Your task to perform on an android device: Toggle the flashlight Image 0: 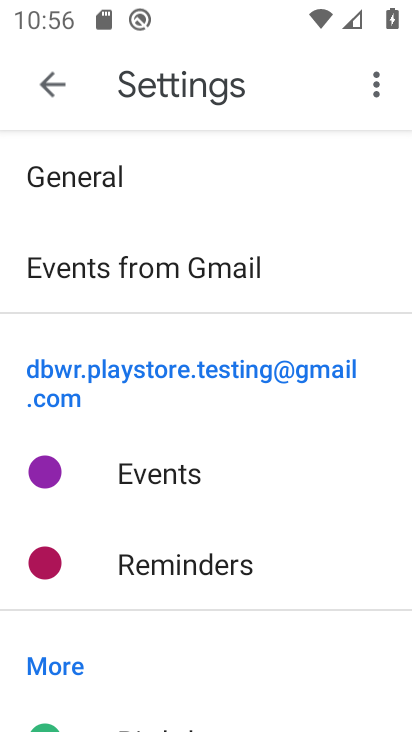
Step 0: press home button
Your task to perform on an android device: Toggle the flashlight Image 1: 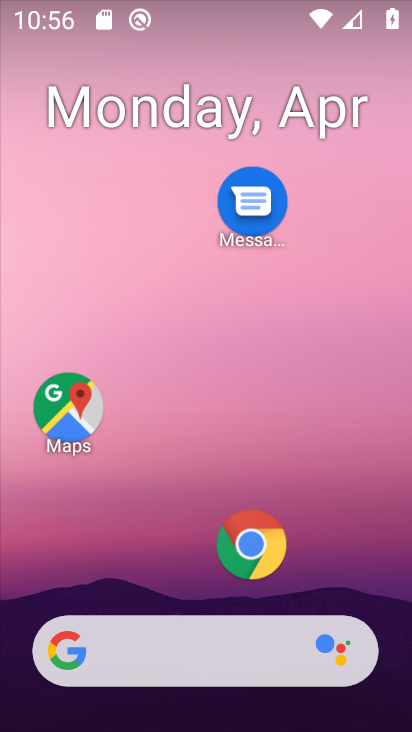
Step 1: drag from (200, 591) to (247, 135)
Your task to perform on an android device: Toggle the flashlight Image 2: 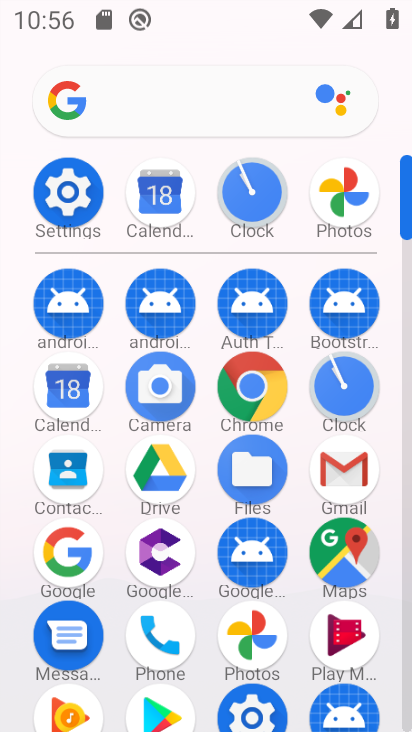
Step 2: click (67, 180)
Your task to perform on an android device: Toggle the flashlight Image 3: 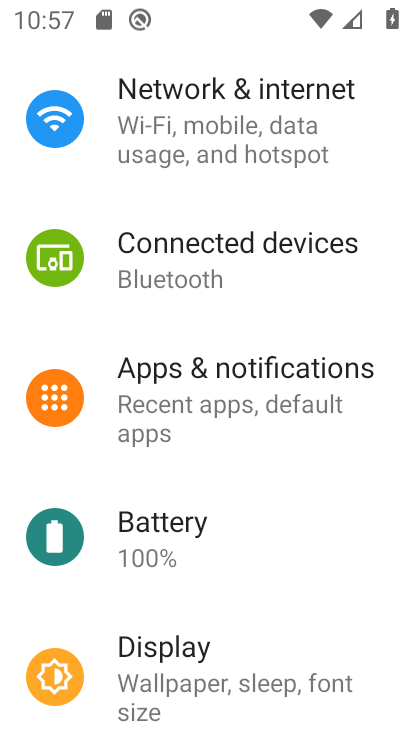
Step 3: drag from (216, 188) to (215, 569)
Your task to perform on an android device: Toggle the flashlight Image 4: 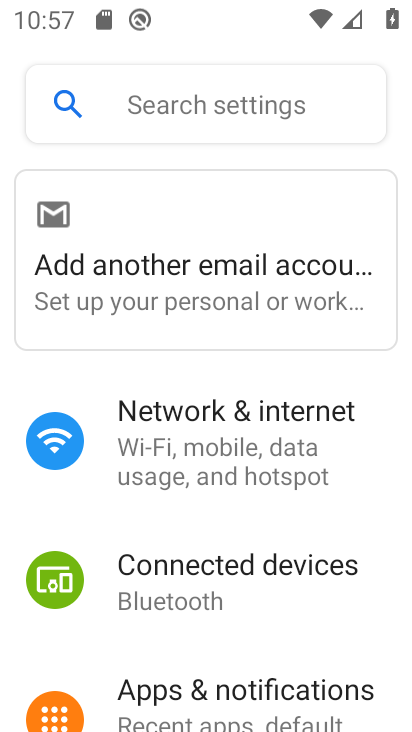
Step 4: click (172, 106)
Your task to perform on an android device: Toggle the flashlight Image 5: 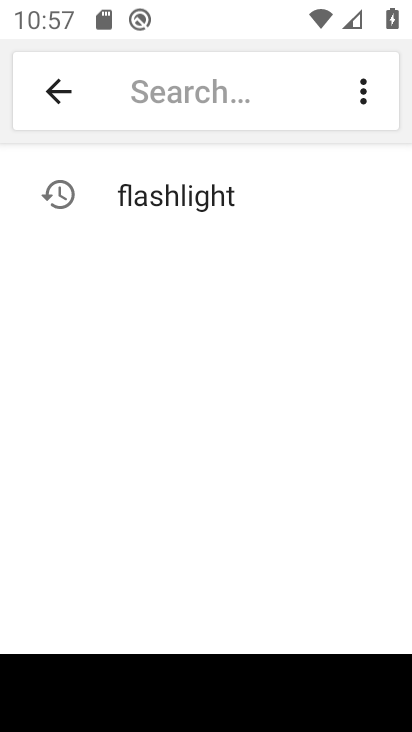
Step 5: type "fla"
Your task to perform on an android device: Toggle the flashlight Image 6: 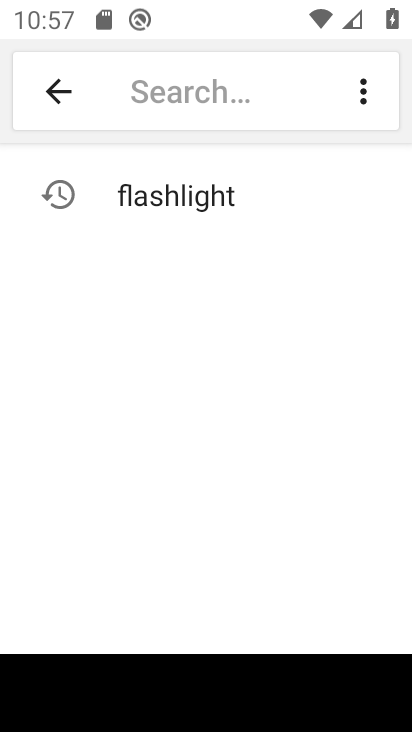
Step 6: click (267, 200)
Your task to perform on an android device: Toggle the flashlight Image 7: 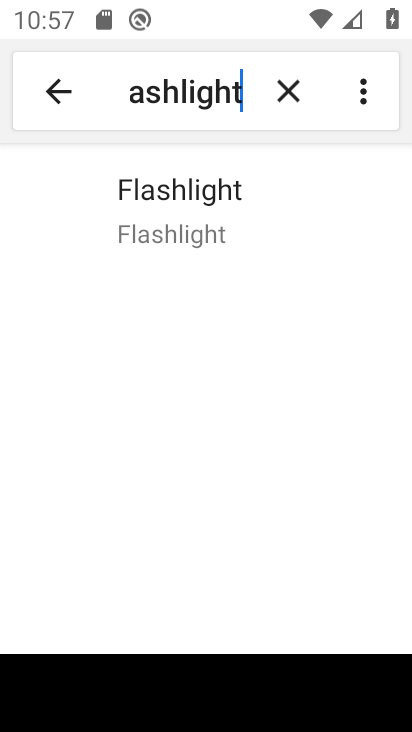
Step 7: click (232, 217)
Your task to perform on an android device: Toggle the flashlight Image 8: 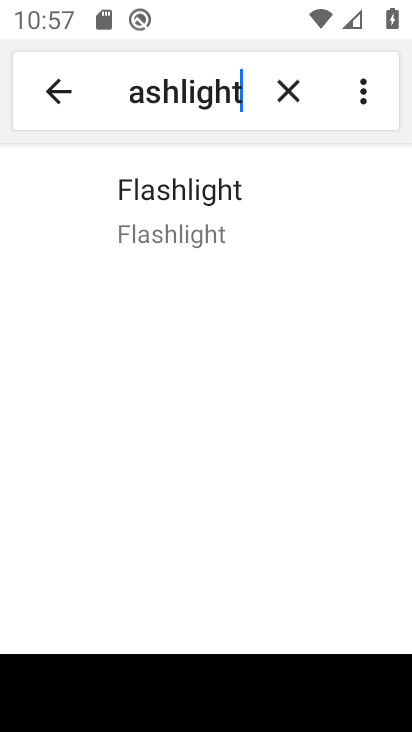
Step 8: task complete